Your task to perform on an android device: install app "Microsoft Excel" Image 0: 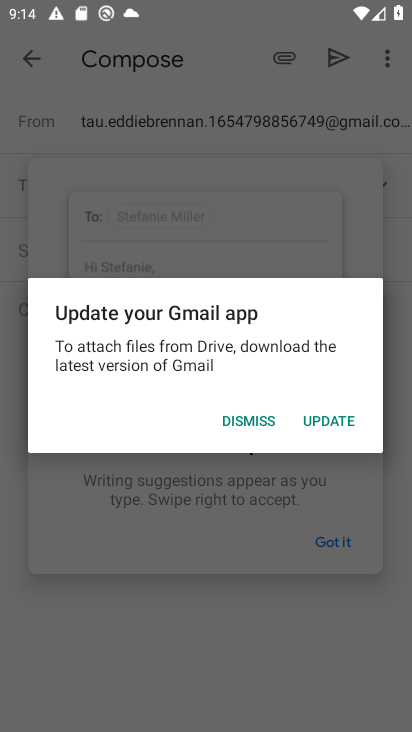
Step 0: press home button
Your task to perform on an android device: install app "Microsoft Excel" Image 1: 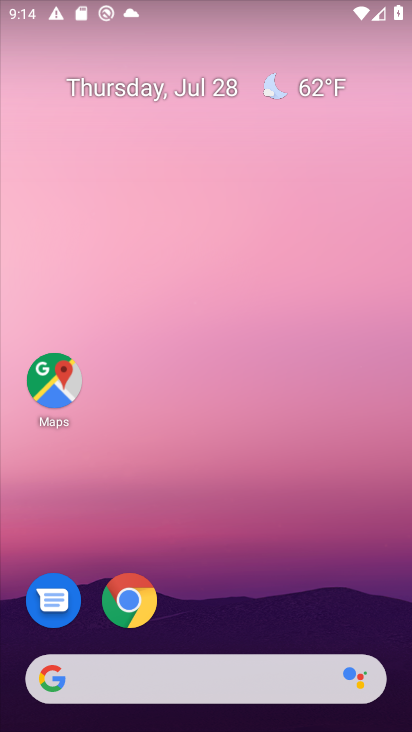
Step 1: drag from (233, 636) to (245, 0)
Your task to perform on an android device: install app "Microsoft Excel" Image 2: 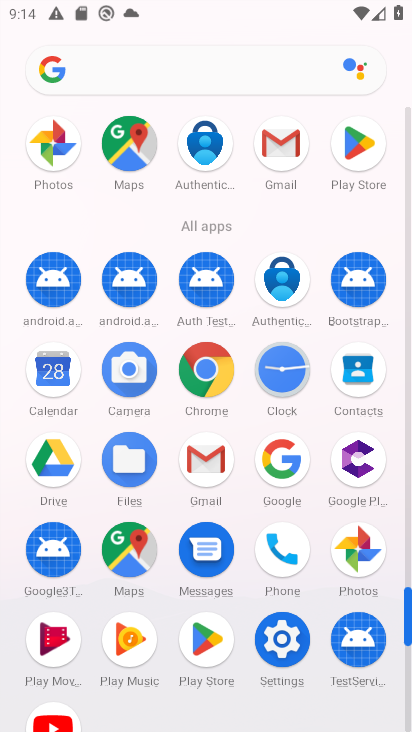
Step 2: click (355, 140)
Your task to perform on an android device: install app "Microsoft Excel" Image 3: 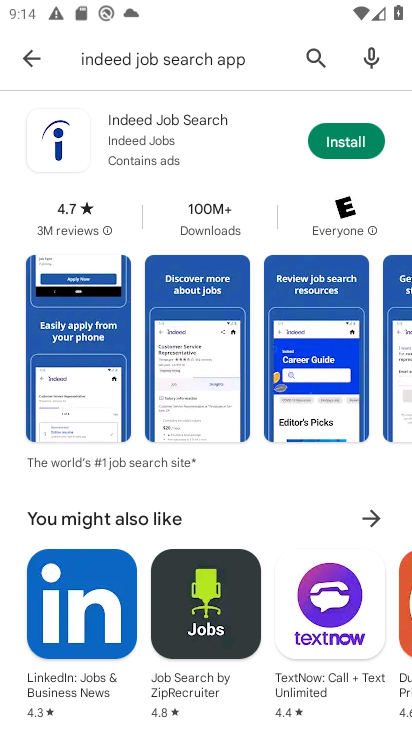
Step 3: click (316, 59)
Your task to perform on an android device: install app "Microsoft Excel" Image 4: 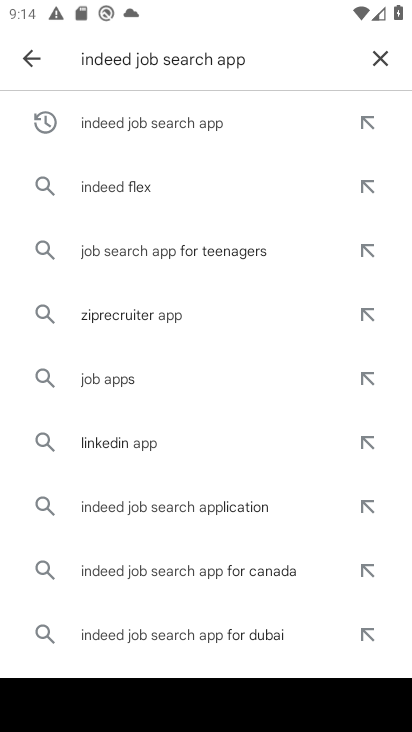
Step 4: click (384, 61)
Your task to perform on an android device: install app "Microsoft Excel" Image 5: 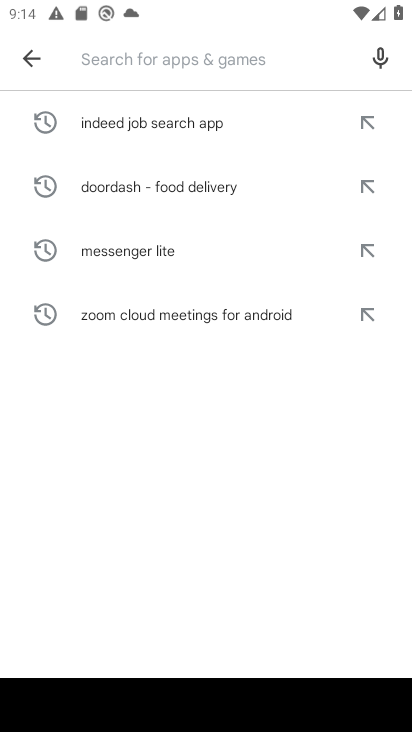
Step 5: click (207, 65)
Your task to perform on an android device: install app "Microsoft Excel" Image 6: 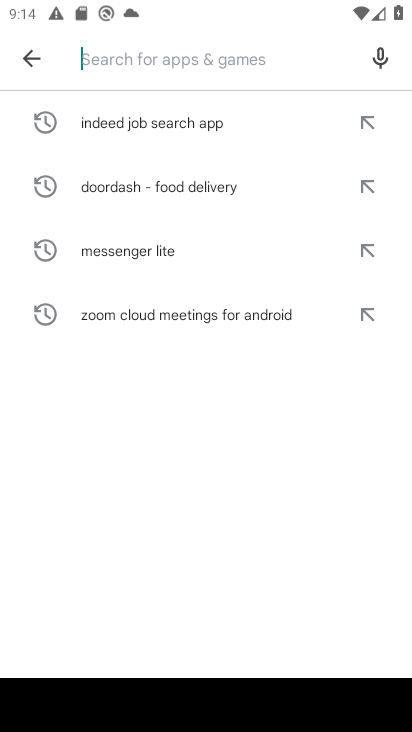
Step 6: type "Microsoft Excel"
Your task to perform on an android device: install app "Microsoft Excel" Image 7: 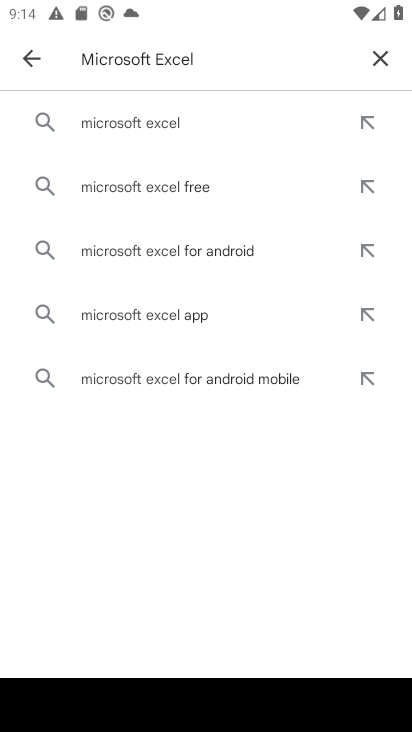
Step 7: click (128, 127)
Your task to perform on an android device: install app "Microsoft Excel" Image 8: 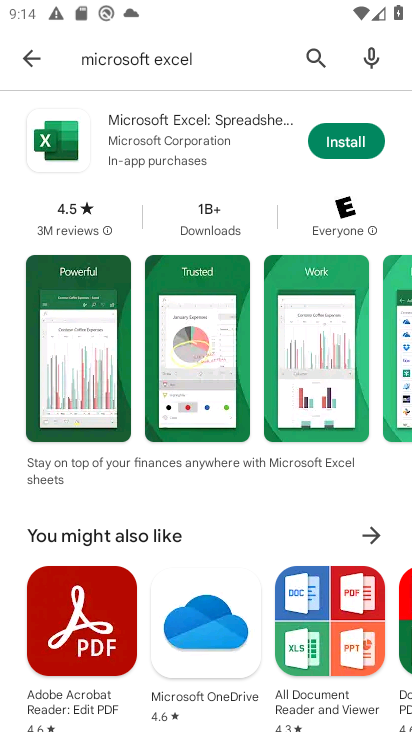
Step 8: click (329, 140)
Your task to perform on an android device: install app "Microsoft Excel" Image 9: 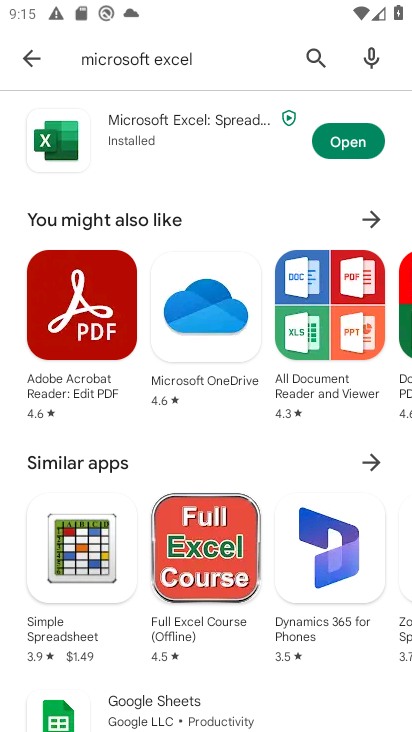
Step 9: task complete